Your task to perform on an android device: Open settings Image 0: 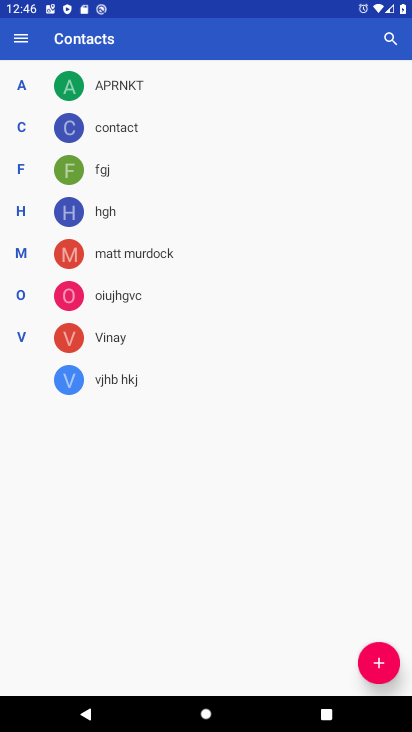
Step 0: press home button
Your task to perform on an android device: Open settings Image 1: 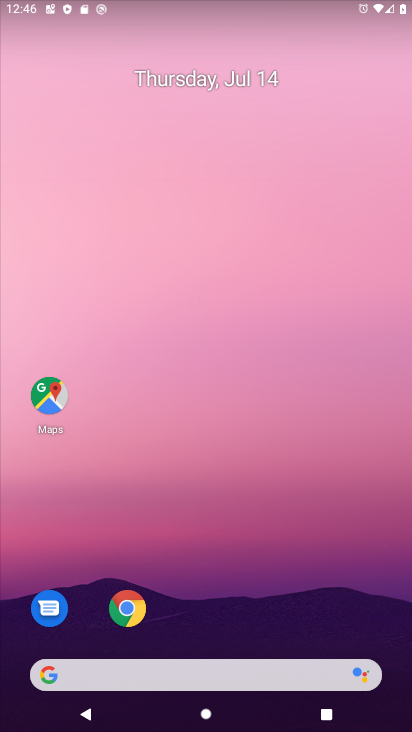
Step 1: drag from (219, 681) to (242, 307)
Your task to perform on an android device: Open settings Image 2: 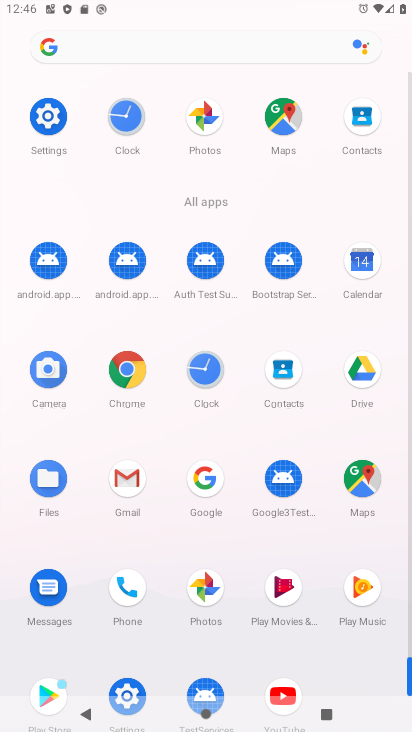
Step 2: click (49, 117)
Your task to perform on an android device: Open settings Image 3: 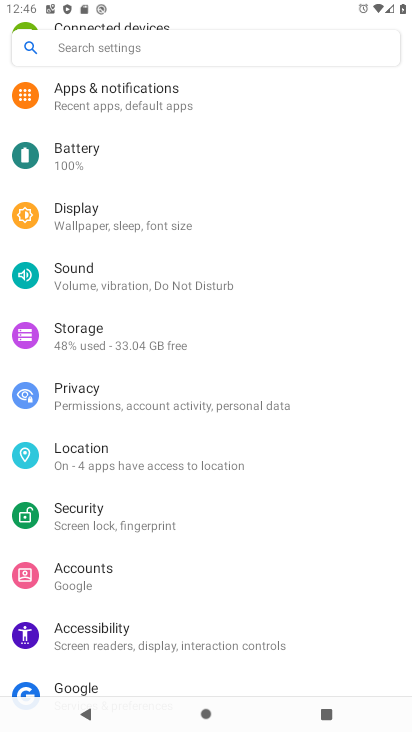
Step 3: task complete